Your task to perform on an android device: Go to Wikipedia Image 0: 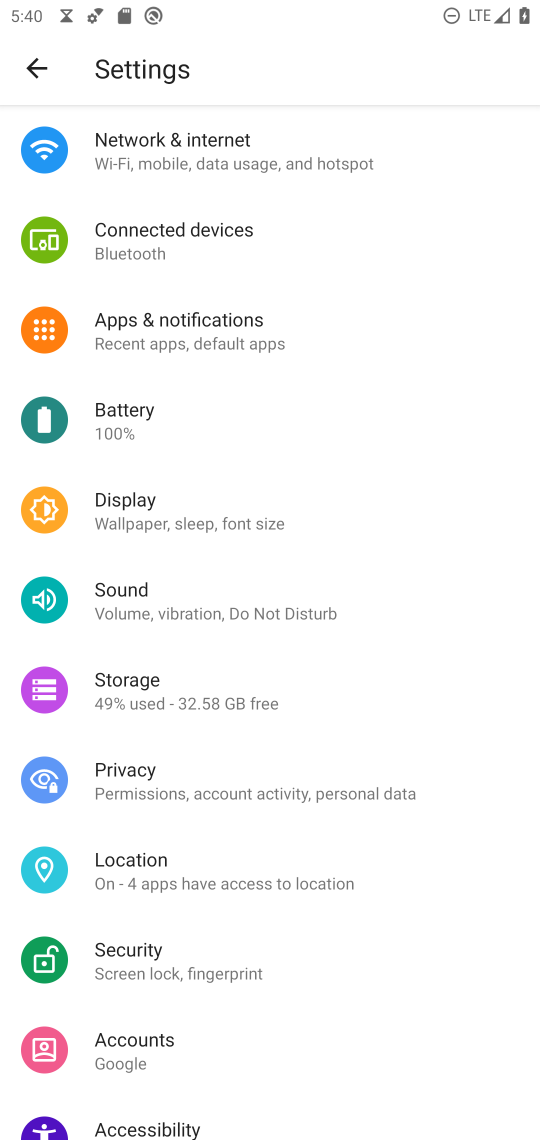
Step 0: press home button
Your task to perform on an android device: Go to Wikipedia Image 1: 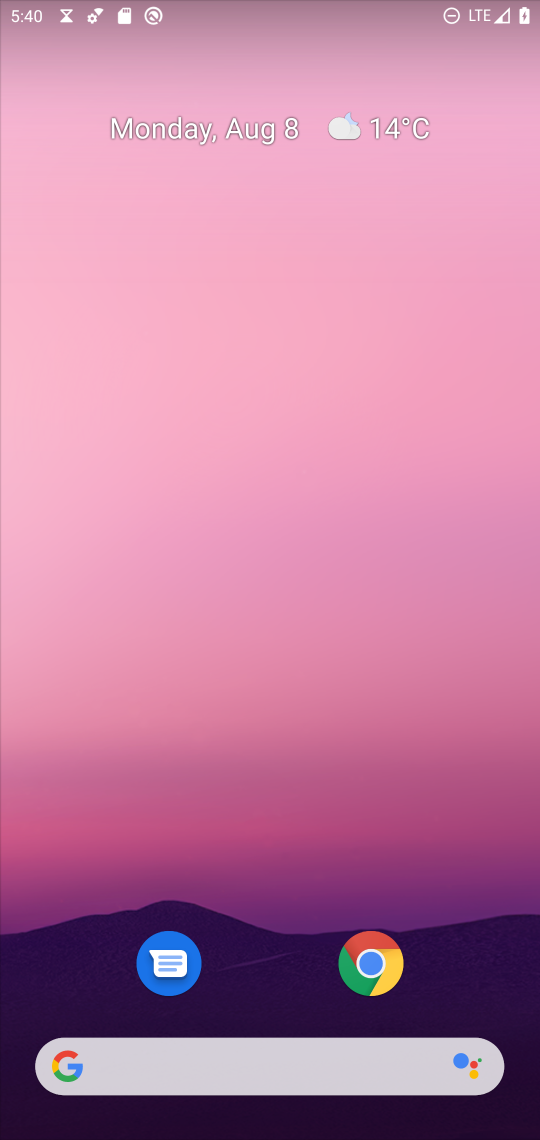
Step 1: click (369, 961)
Your task to perform on an android device: Go to Wikipedia Image 2: 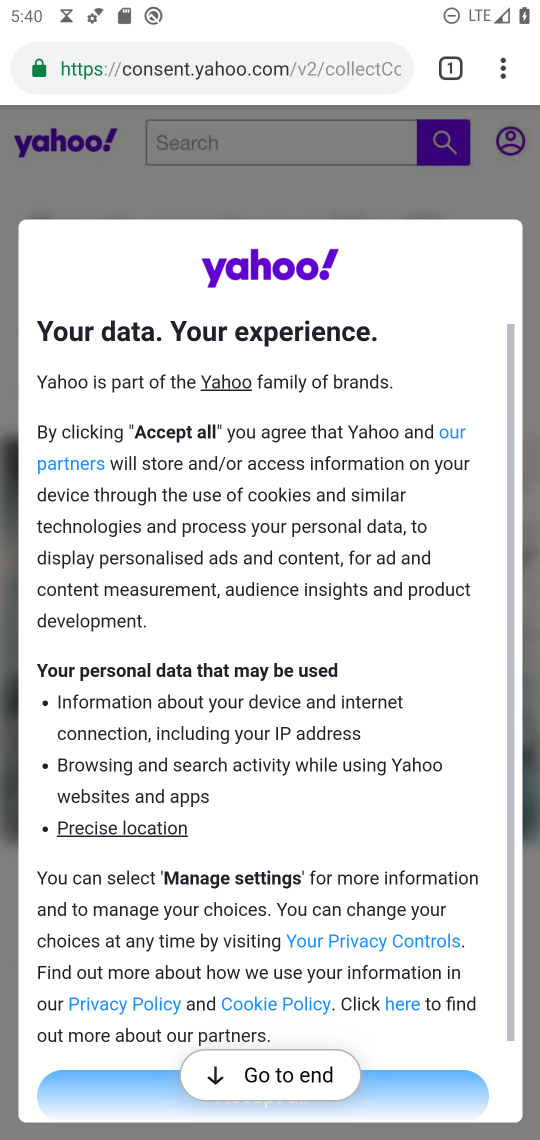
Step 2: click (190, 59)
Your task to perform on an android device: Go to Wikipedia Image 3: 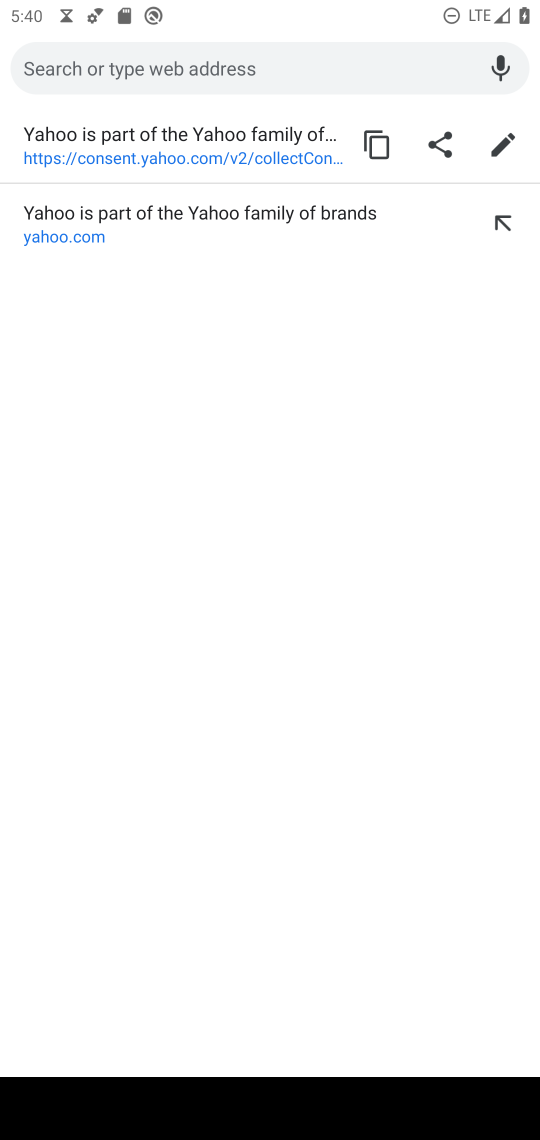
Step 3: type "wikipedia"
Your task to perform on an android device: Go to Wikipedia Image 4: 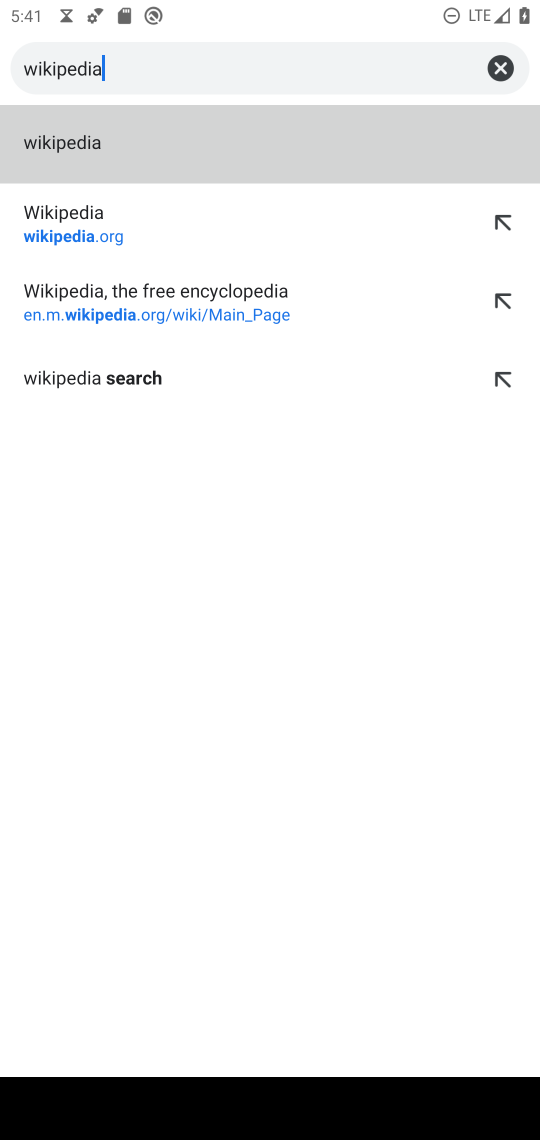
Step 4: click (235, 138)
Your task to perform on an android device: Go to Wikipedia Image 5: 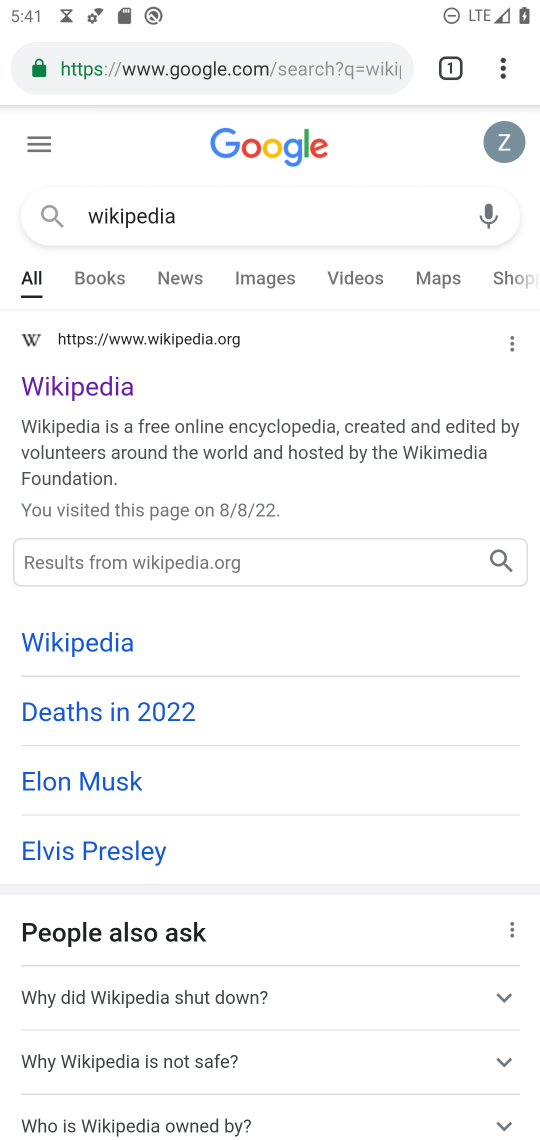
Step 5: click (77, 374)
Your task to perform on an android device: Go to Wikipedia Image 6: 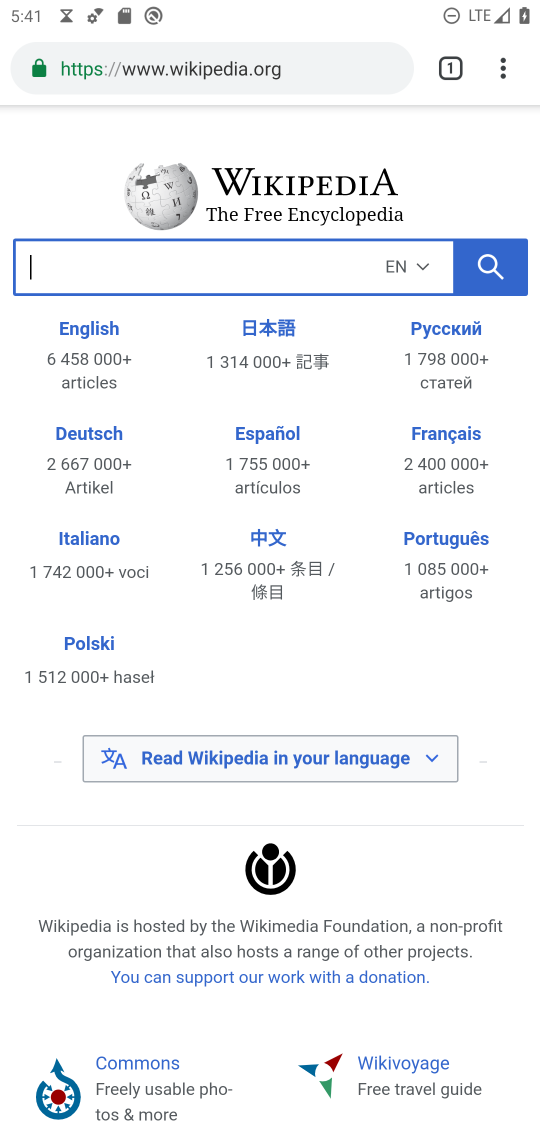
Step 6: task complete